Your task to perform on an android device: add a contact in the contacts app Image 0: 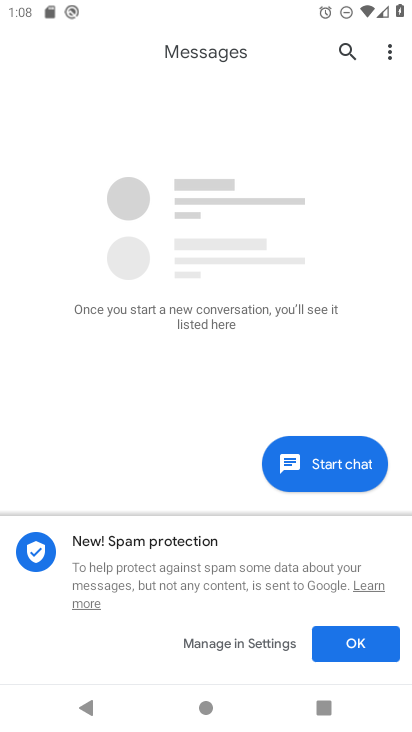
Step 0: press home button
Your task to perform on an android device: add a contact in the contacts app Image 1: 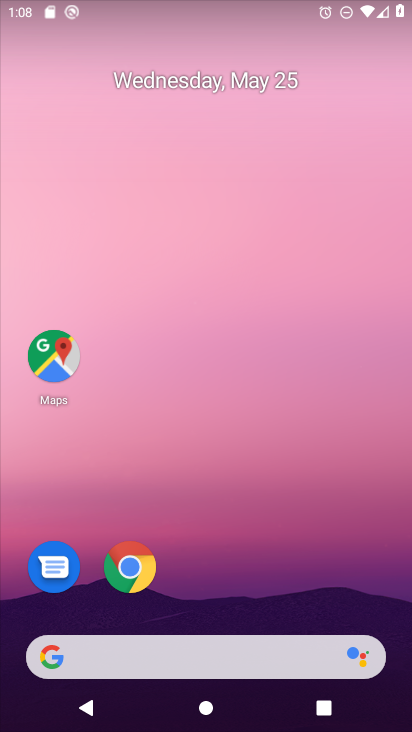
Step 1: drag from (400, 695) to (409, 165)
Your task to perform on an android device: add a contact in the contacts app Image 2: 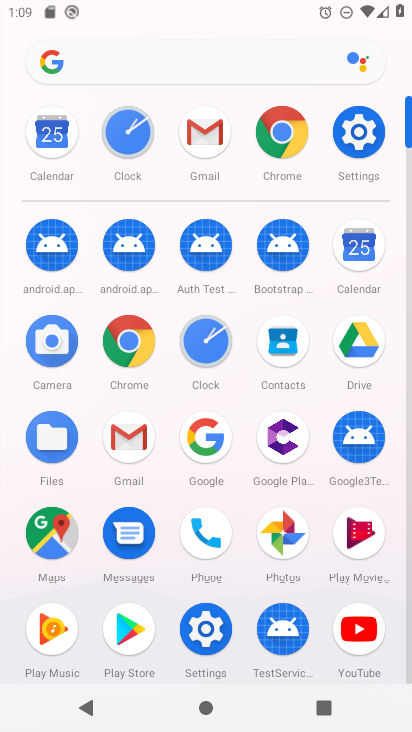
Step 2: click (279, 352)
Your task to perform on an android device: add a contact in the contacts app Image 3: 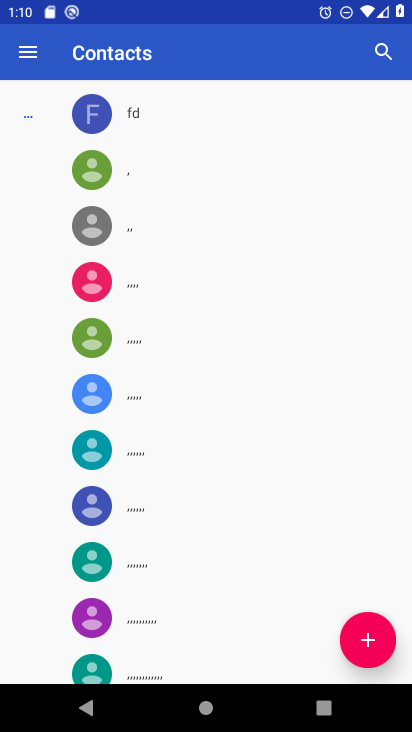
Step 3: click (368, 647)
Your task to perform on an android device: add a contact in the contacts app Image 4: 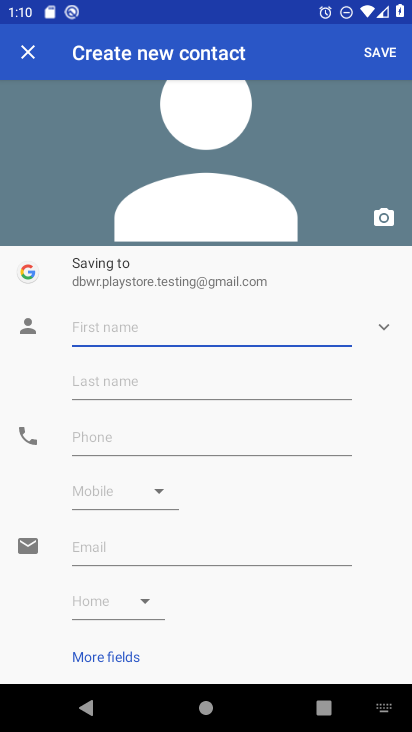
Step 4: type ""
Your task to perform on an android device: add a contact in the contacts app Image 5: 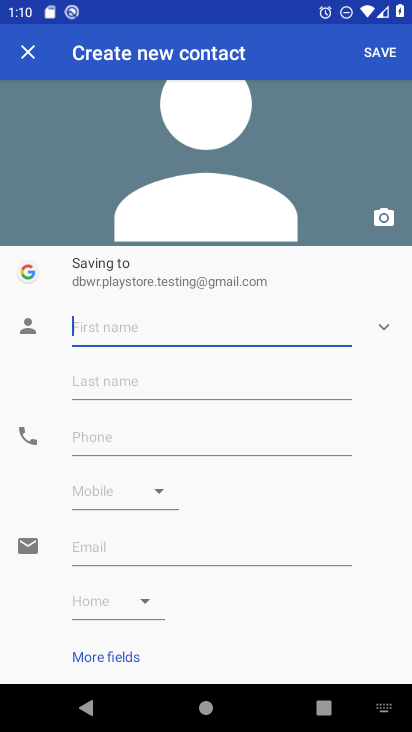
Step 5: type "fdhghgfhg"
Your task to perform on an android device: add a contact in the contacts app Image 6: 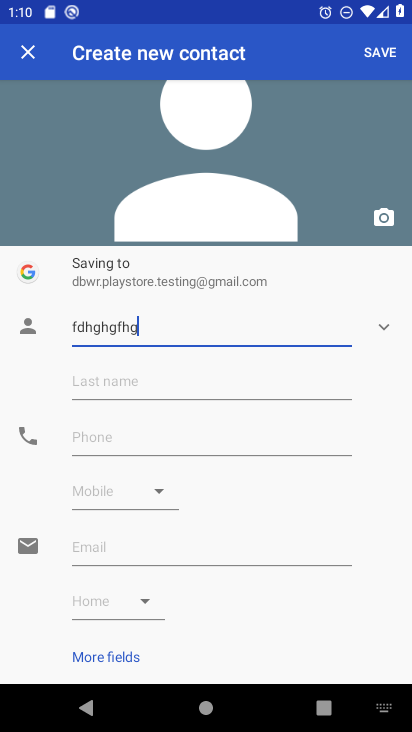
Step 6: click (183, 391)
Your task to perform on an android device: add a contact in the contacts app Image 7: 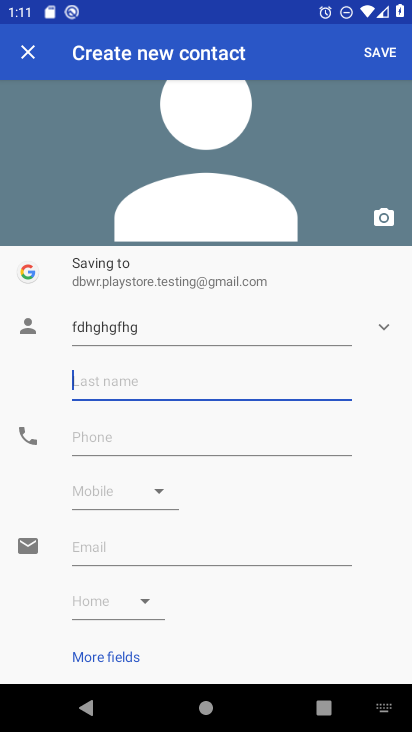
Step 7: type "ghfhhgfgg"
Your task to perform on an android device: add a contact in the contacts app Image 8: 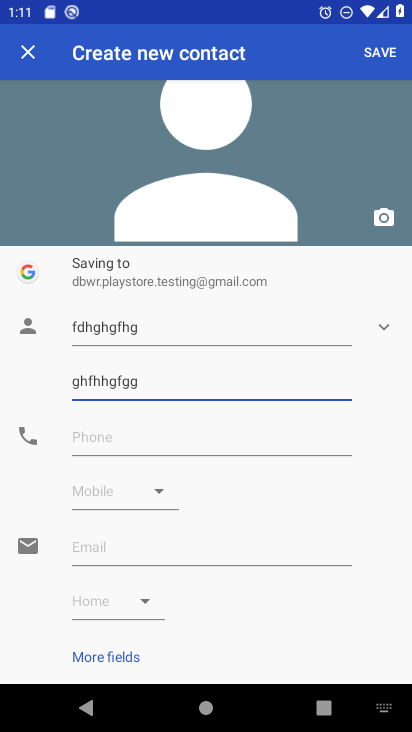
Step 8: click (148, 434)
Your task to perform on an android device: add a contact in the contacts app Image 9: 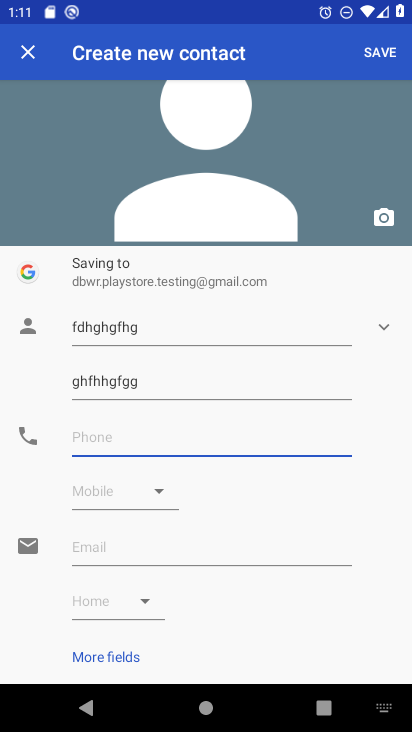
Step 9: type "5456454654545"
Your task to perform on an android device: add a contact in the contacts app Image 10: 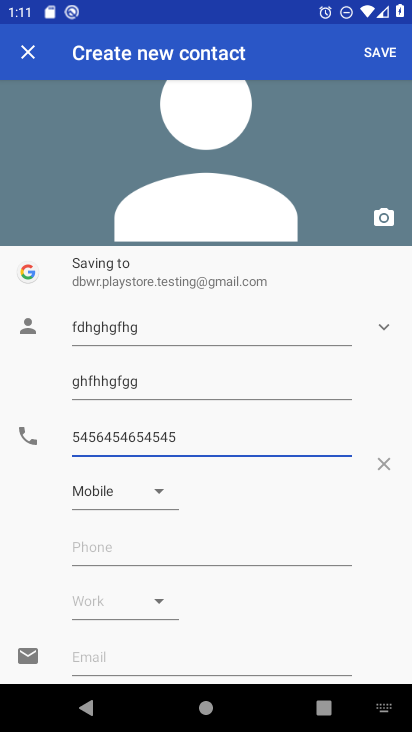
Step 10: click (370, 54)
Your task to perform on an android device: add a contact in the contacts app Image 11: 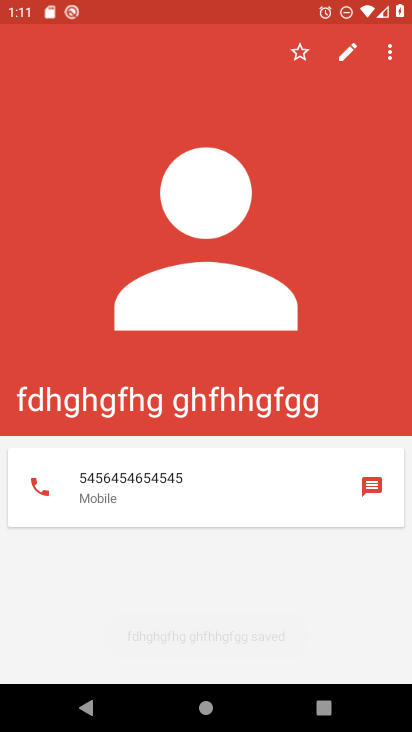
Step 11: task complete